Your task to perform on an android device: set the timer Image 0: 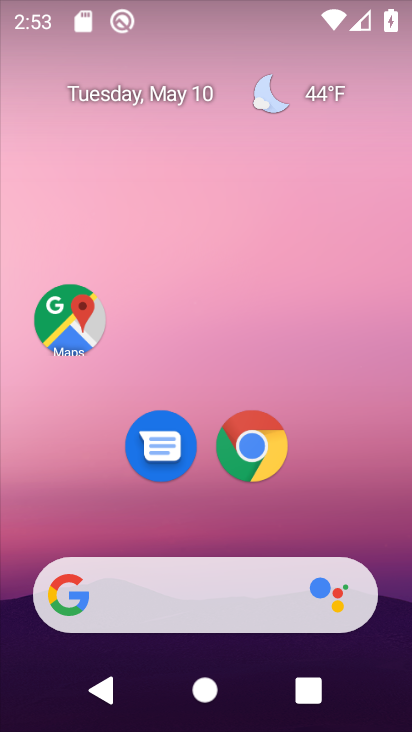
Step 0: drag from (389, 515) to (406, 51)
Your task to perform on an android device: set the timer Image 1: 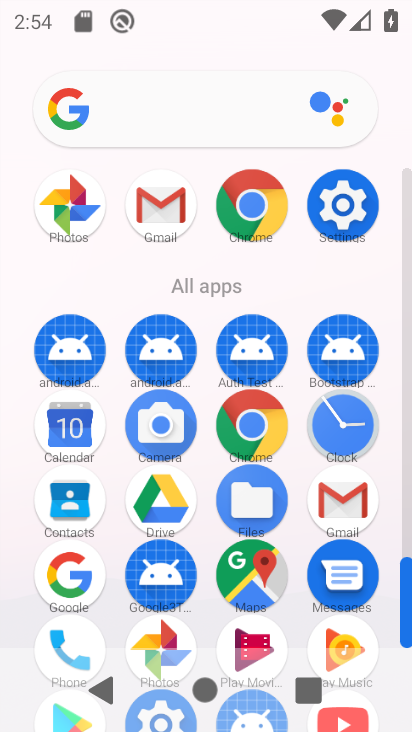
Step 1: click (360, 421)
Your task to perform on an android device: set the timer Image 2: 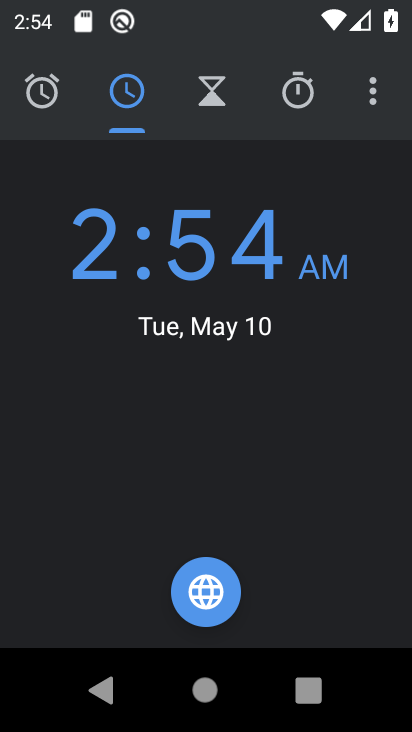
Step 2: click (226, 112)
Your task to perform on an android device: set the timer Image 3: 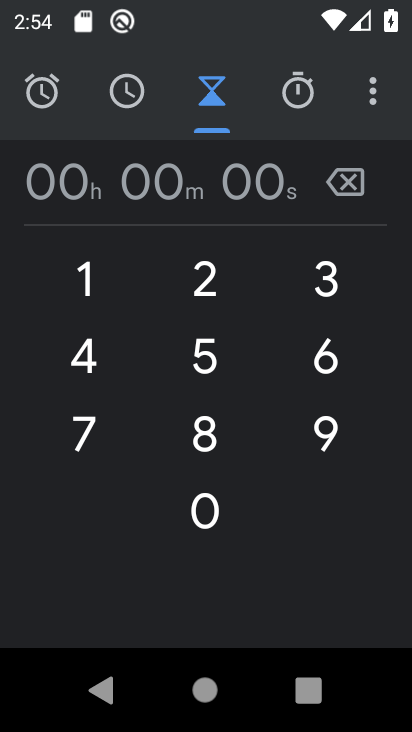
Step 3: click (103, 262)
Your task to perform on an android device: set the timer Image 4: 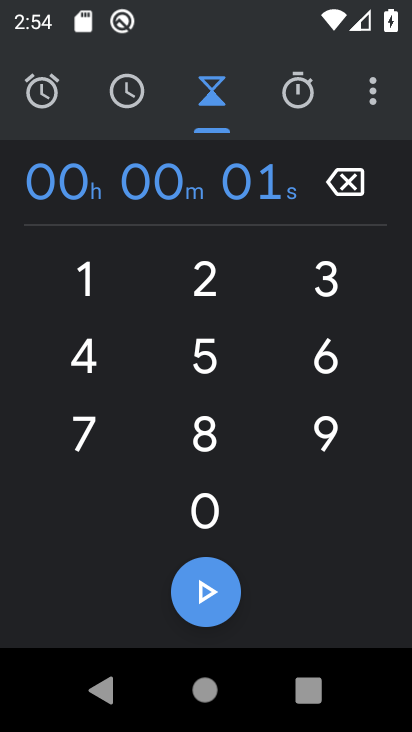
Step 4: click (99, 350)
Your task to perform on an android device: set the timer Image 5: 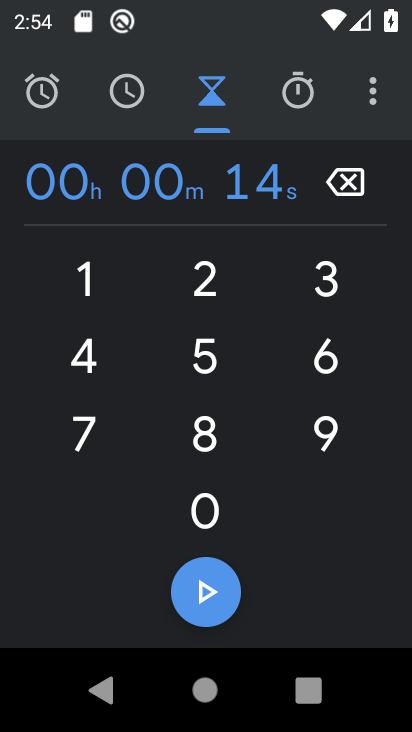
Step 5: click (90, 273)
Your task to perform on an android device: set the timer Image 6: 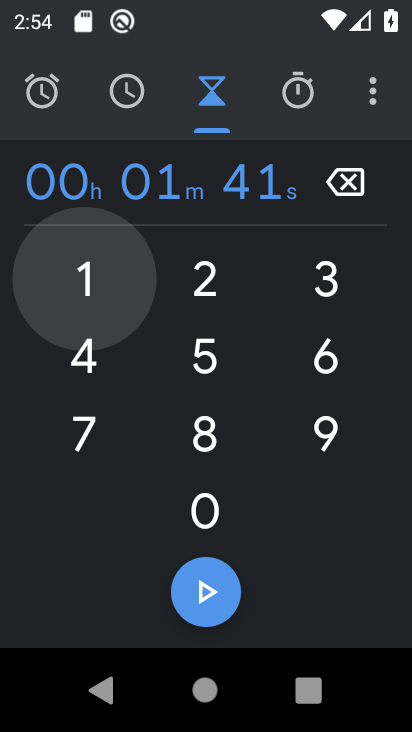
Step 6: click (98, 359)
Your task to perform on an android device: set the timer Image 7: 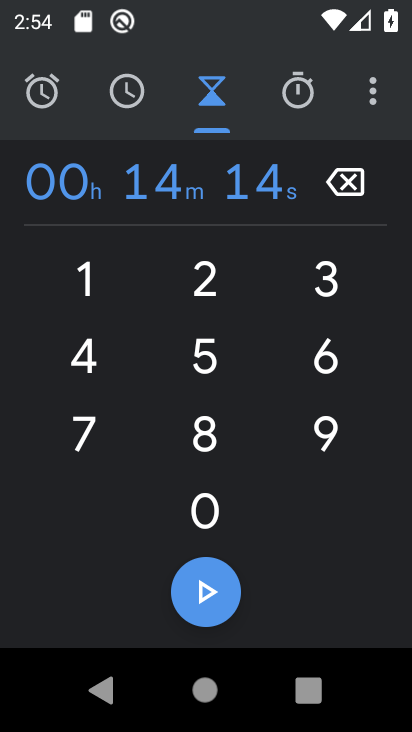
Step 7: click (76, 280)
Your task to perform on an android device: set the timer Image 8: 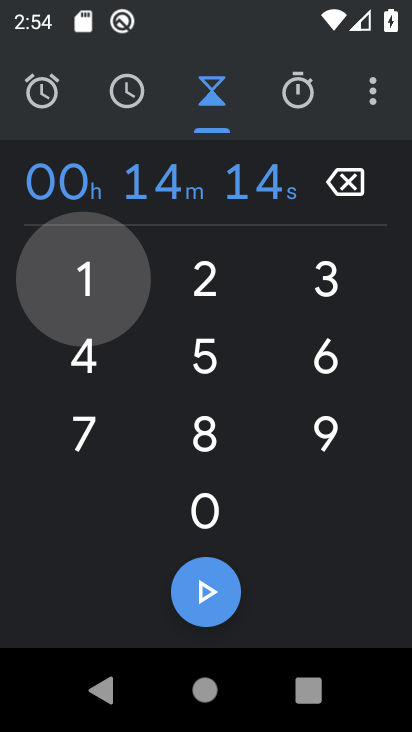
Step 8: click (91, 353)
Your task to perform on an android device: set the timer Image 9: 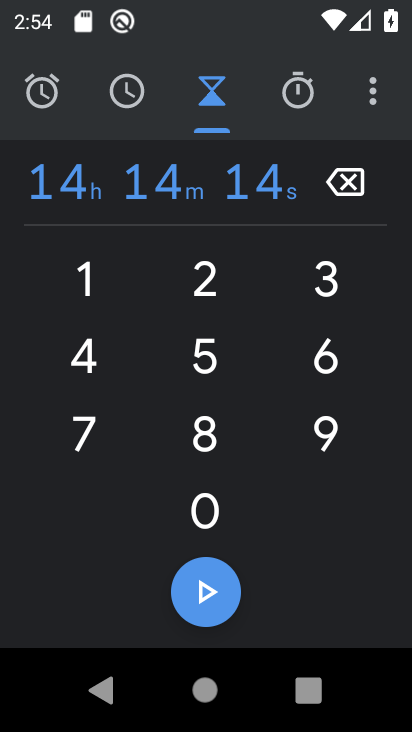
Step 9: click (197, 601)
Your task to perform on an android device: set the timer Image 10: 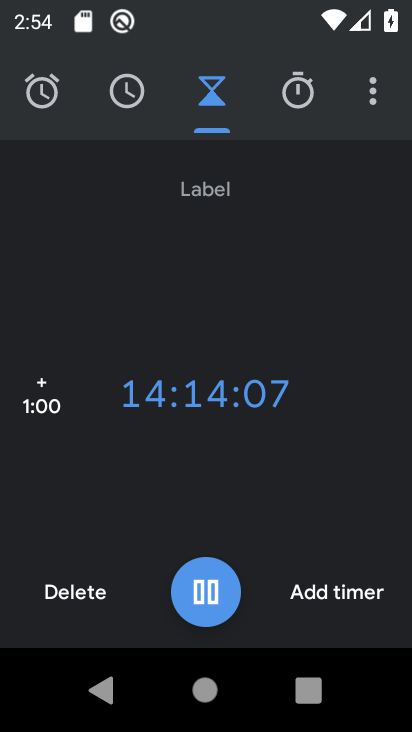
Step 10: task complete